Your task to perform on an android device: Search for pizza restaurants on Maps Image 0: 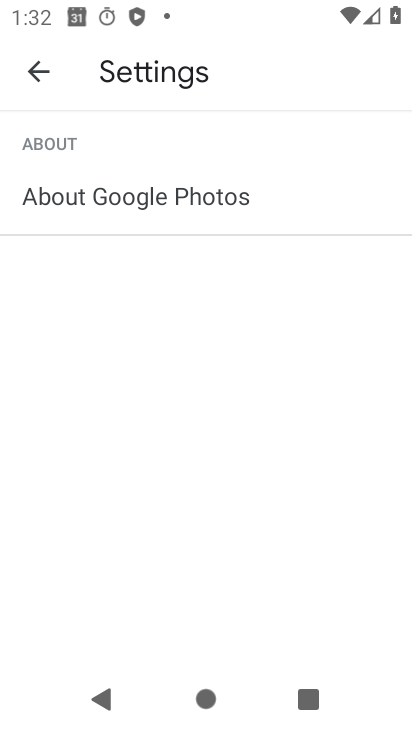
Step 0: press home button
Your task to perform on an android device: Search for pizza restaurants on Maps Image 1: 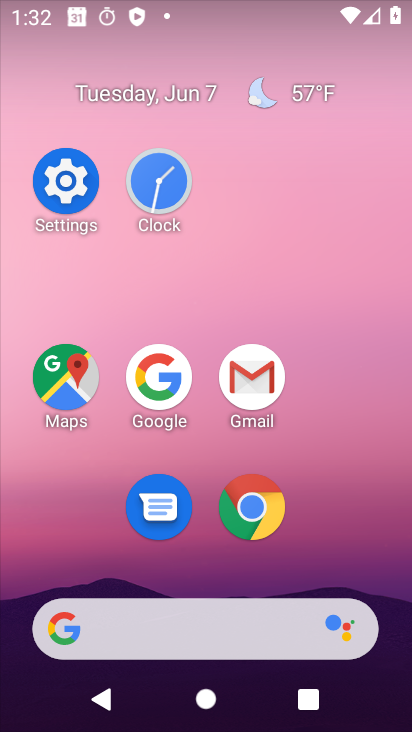
Step 1: click (63, 394)
Your task to perform on an android device: Search for pizza restaurants on Maps Image 2: 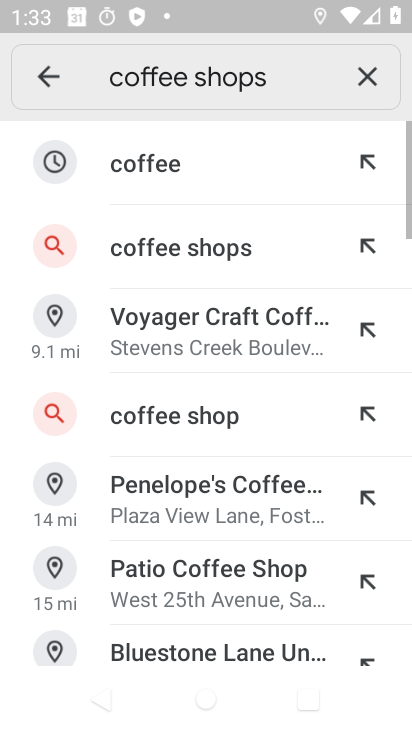
Step 2: click (358, 66)
Your task to perform on an android device: Search for pizza restaurants on Maps Image 3: 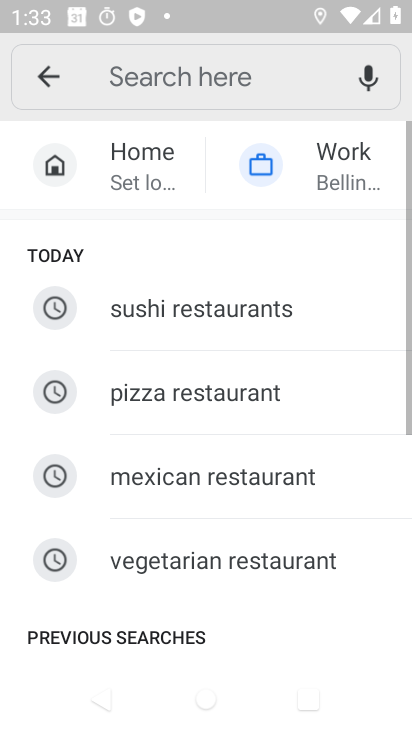
Step 3: click (211, 61)
Your task to perform on an android device: Search for pizza restaurants on Maps Image 4: 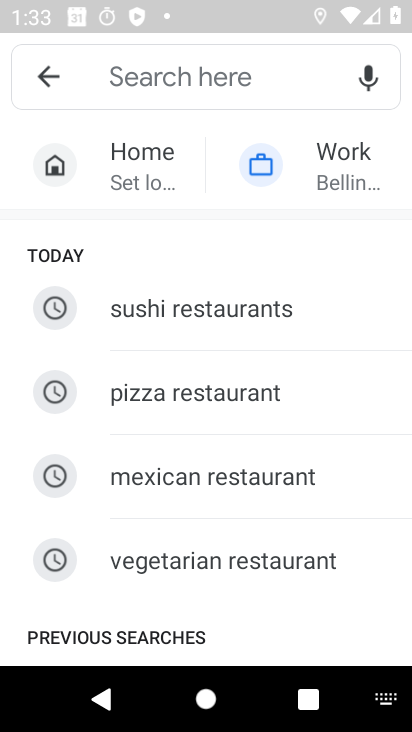
Step 4: click (199, 388)
Your task to perform on an android device: Search for pizza restaurants on Maps Image 5: 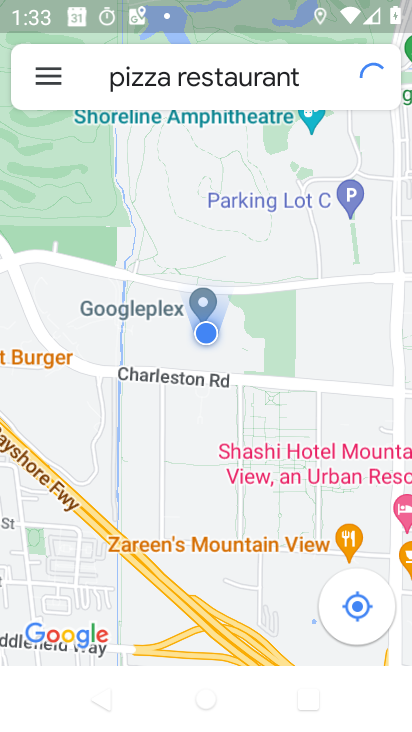
Step 5: task complete